Your task to perform on an android device: Open ESPN.com Image 0: 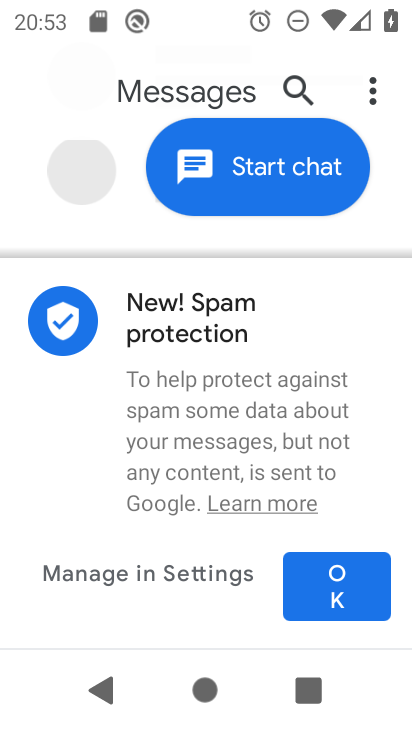
Step 0: press home button
Your task to perform on an android device: Open ESPN.com Image 1: 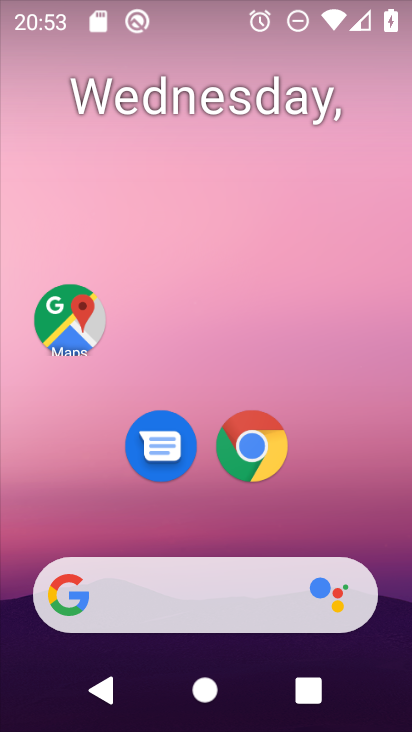
Step 1: click (254, 452)
Your task to perform on an android device: Open ESPN.com Image 2: 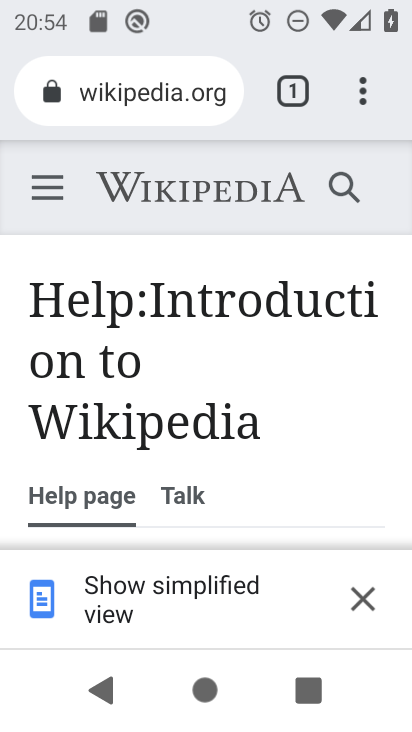
Step 2: click (129, 116)
Your task to perform on an android device: Open ESPN.com Image 3: 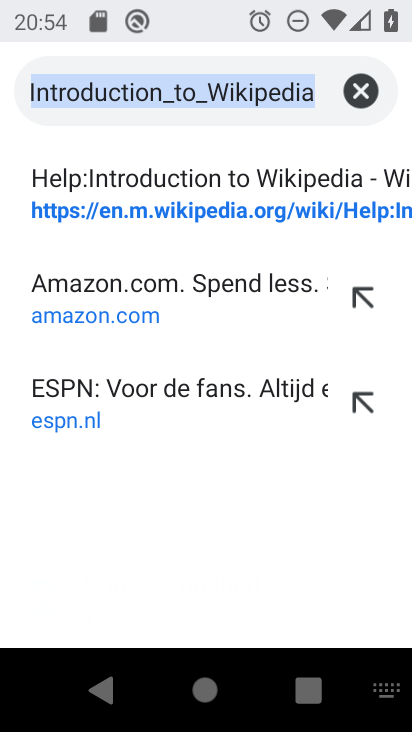
Step 3: type "espn.com"
Your task to perform on an android device: Open ESPN.com Image 4: 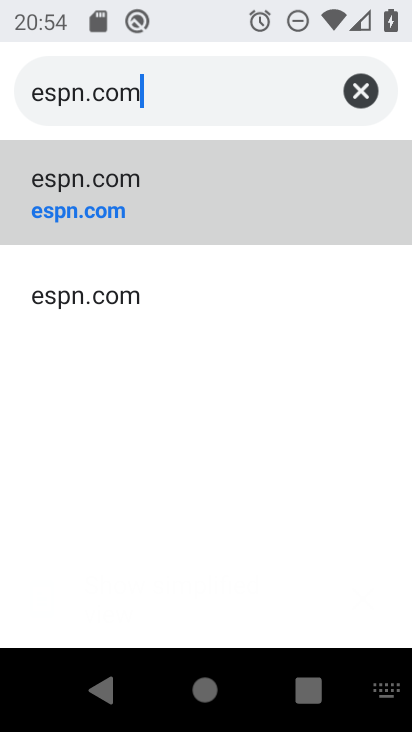
Step 4: click (209, 217)
Your task to perform on an android device: Open ESPN.com Image 5: 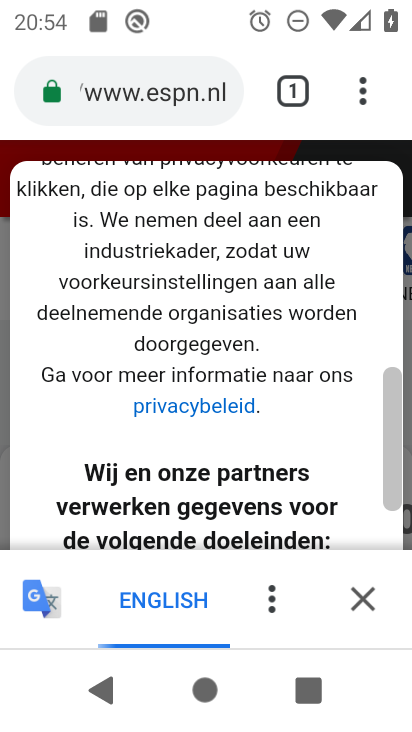
Step 5: task complete